Your task to perform on an android device: Open location settings Image 0: 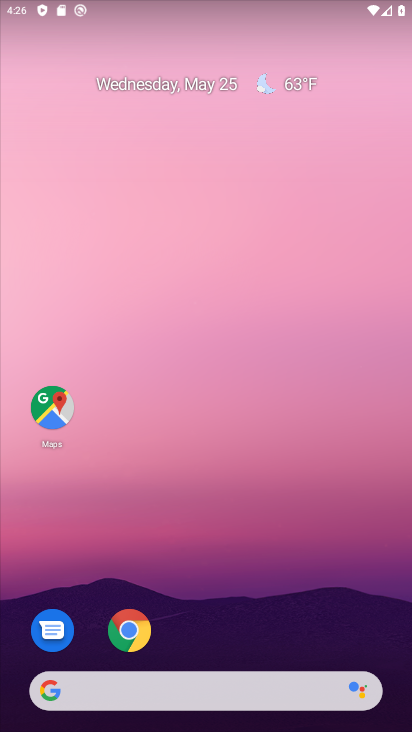
Step 0: drag from (197, 620) to (322, 169)
Your task to perform on an android device: Open location settings Image 1: 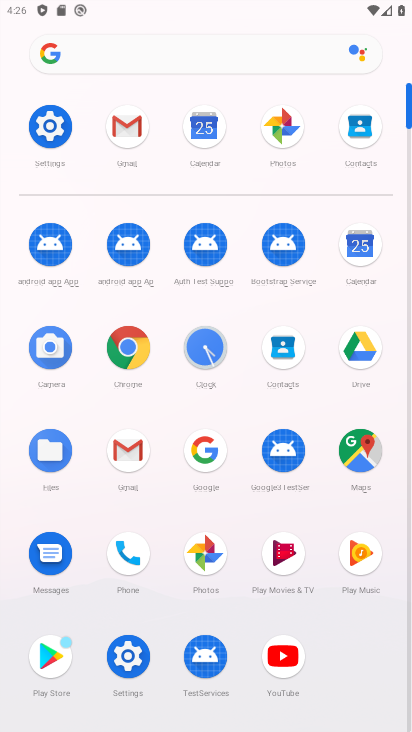
Step 1: click (58, 126)
Your task to perform on an android device: Open location settings Image 2: 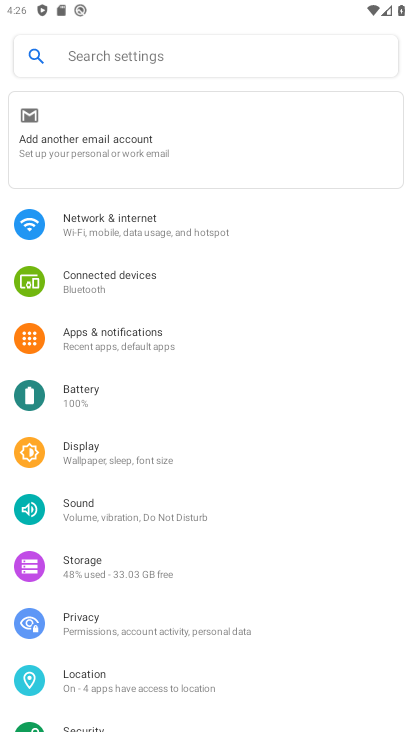
Step 2: click (117, 676)
Your task to perform on an android device: Open location settings Image 3: 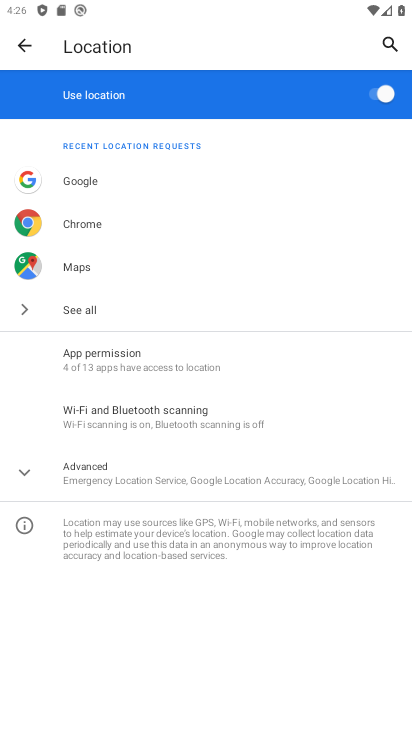
Step 3: task complete